Your task to perform on an android device: Is it going to rain tomorrow? Image 0: 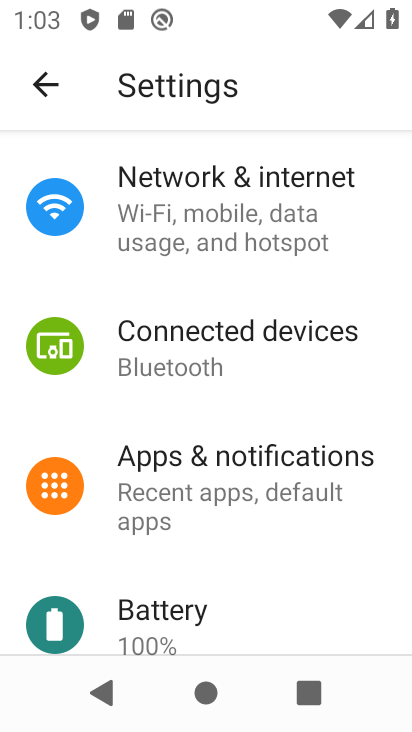
Step 0: press home button
Your task to perform on an android device: Is it going to rain tomorrow? Image 1: 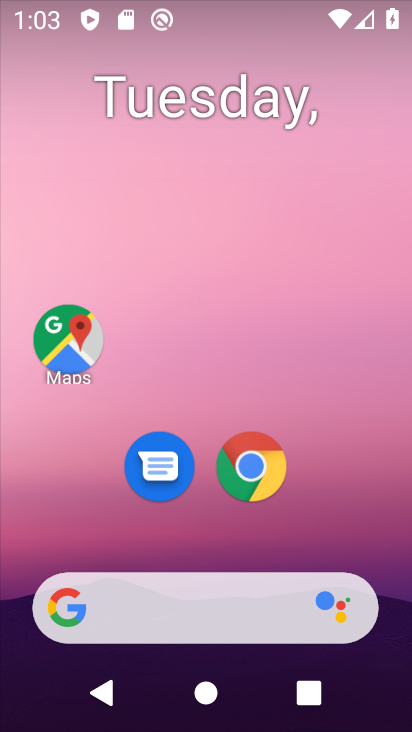
Step 1: drag from (196, 549) to (235, 45)
Your task to perform on an android device: Is it going to rain tomorrow? Image 2: 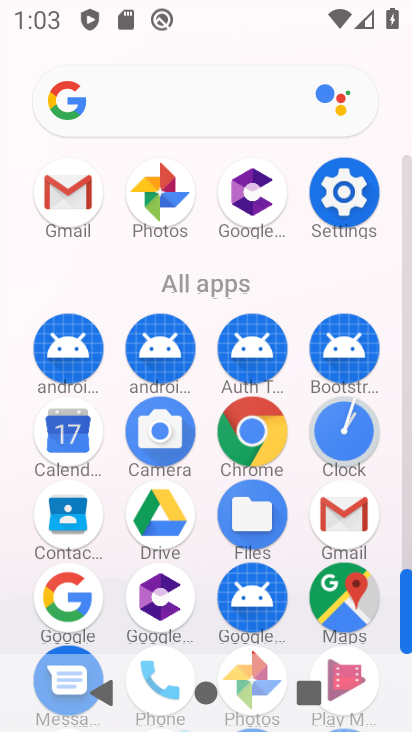
Step 2: click (187, 109)
Your task to perform on an android device: Is it going to rain tomorrow? Image 3: 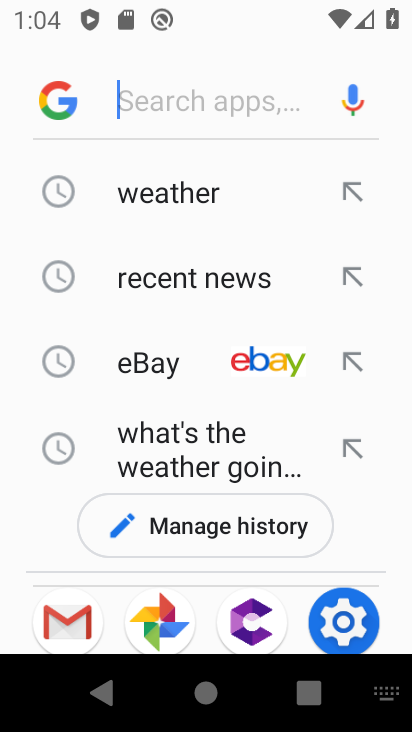
Step 3: type "is it going to rain tomorrow"
Your task to perform on an android device: Is it going to rain tomorrow? Image 4: 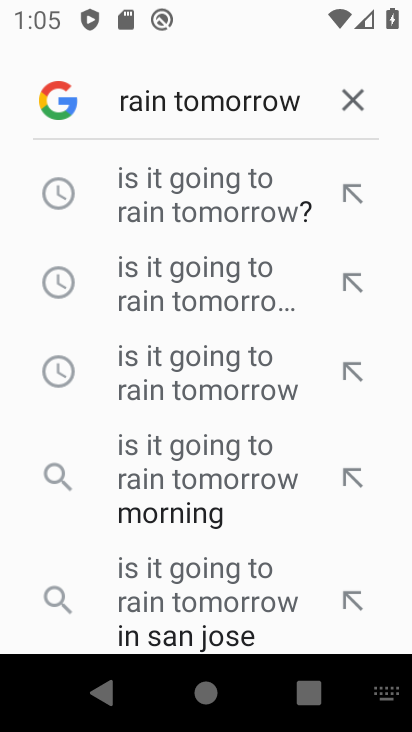
Step 4: click (209, 185)
Your task to perform on an android device: Is it going to rain tomorrow? Image 5: 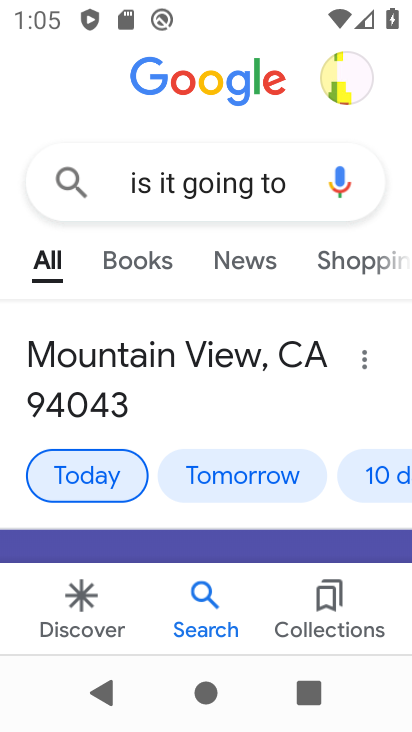
Step 5: drag from (212, 405) to (236, 156)
Your task to perform on an android device: Is it going to rain tomorrow? Image 6: 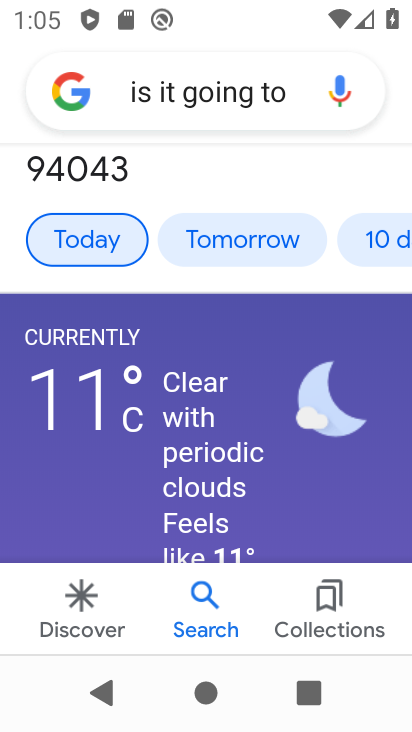
Step 6: click (273, 235)
Your task to perform on an android device: Is it going to rain tomorrow? Image 7: 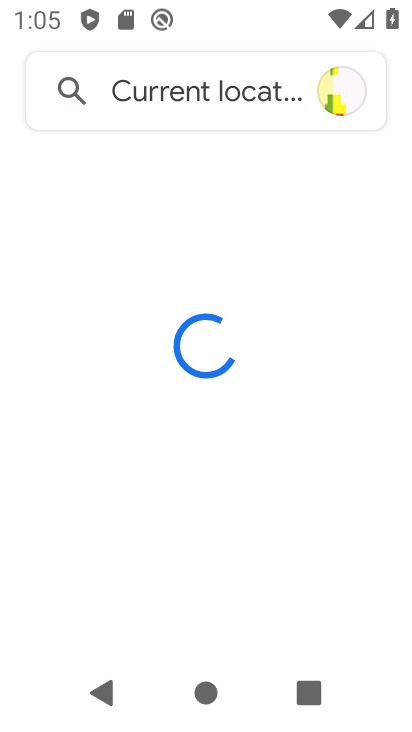
Step 7: click (273, 235)
Your task to perform on an android device: Is it going to rain tomorrow? Image 8: 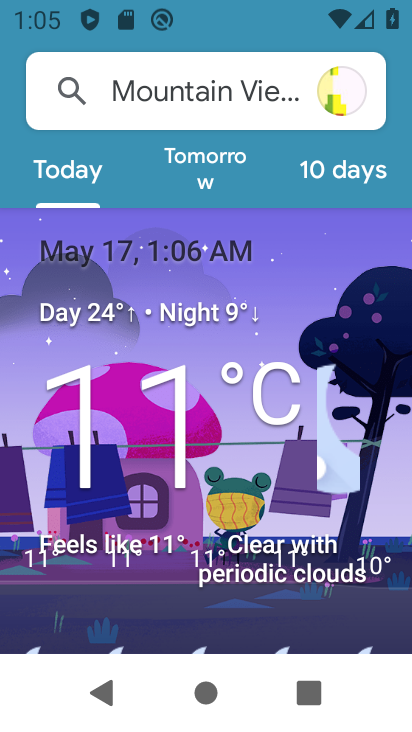
Step 8: task complete